Your task to perform on an android device: What's the weather today? Image 0: 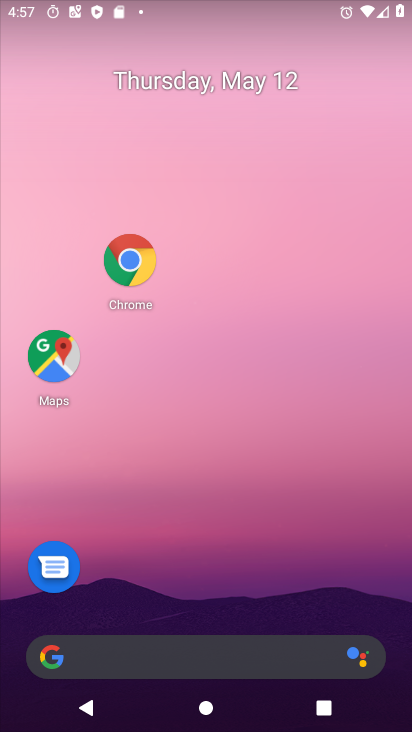
Step 0: drag from (211, 637) to (227, 162)
Your task to perform on an android device: What's the weather today? Image 1: 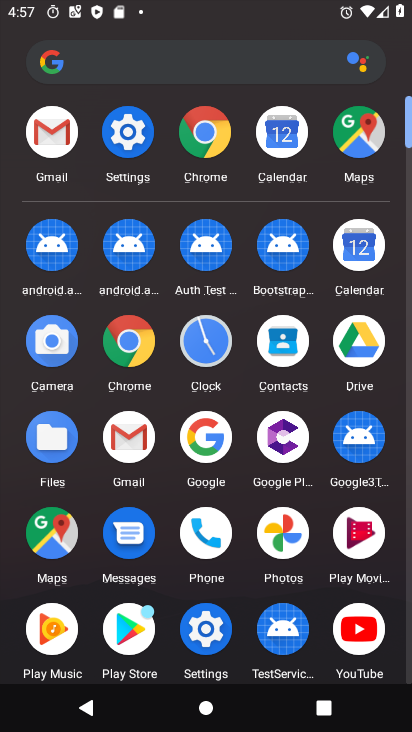
Step 1: click (215, 439)
Your task to perform on an android device: What's the weather today? Image 2: 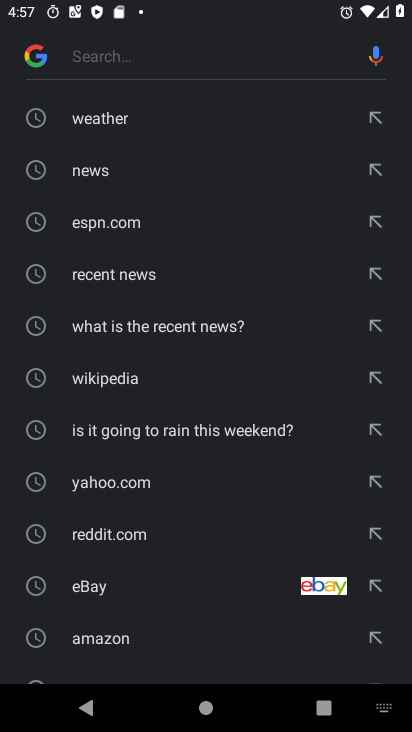
Step 2: click (112, 114)
Your task to perform on an android device: What's the weather today? Image 3: 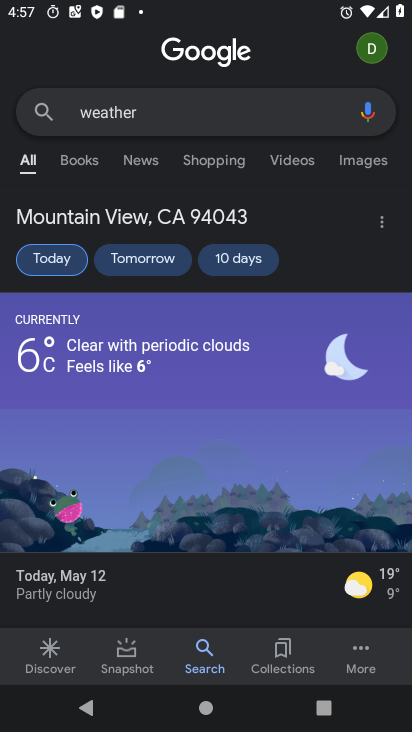
Step 3: task complete